Your task to perform on an android device: turn on airplane mode Image 0: 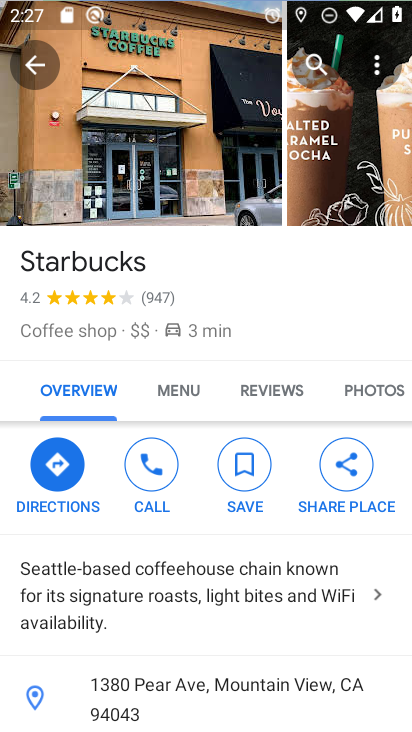
Step 0: press home button
Your task to perform on an android device: turn on airplane mode Image 1: 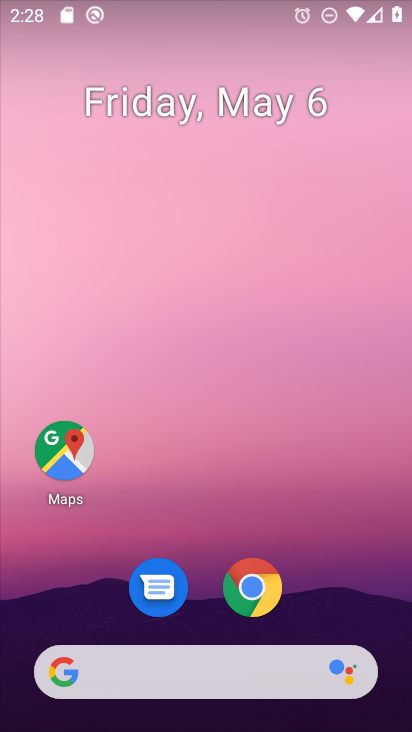
Step 1: drag from (316, 426) to (351, 39)
Your task to perform on an android device: turn on airplane mode Image 2: 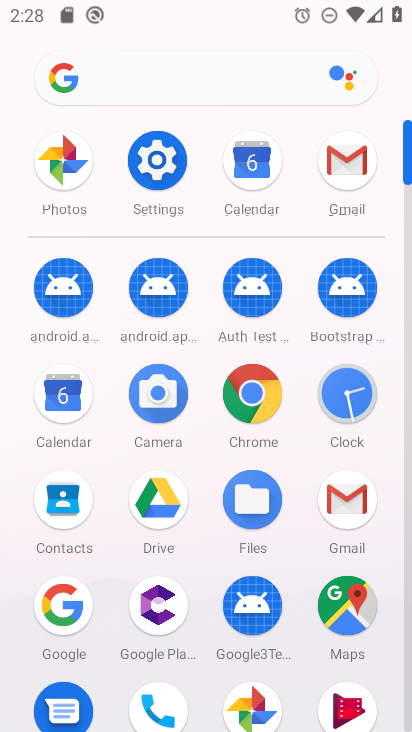
Step 2: click (162, 162)
Your task to perform on an android device: turn on airplane mode Image 3: 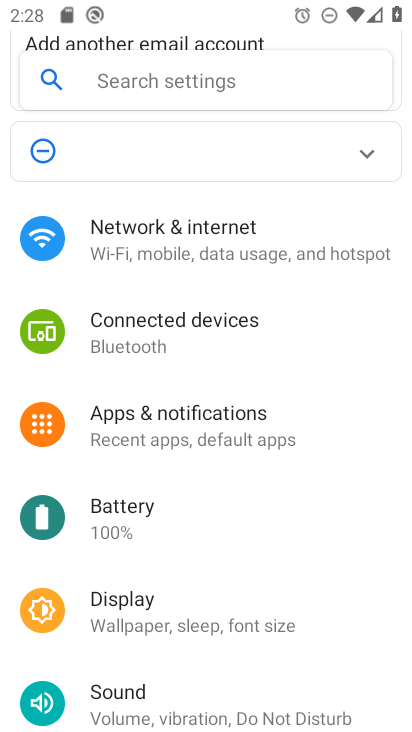
Step 3: click (187, 229)
Your task to perform on an android device: turn on airplane mode Image 4: 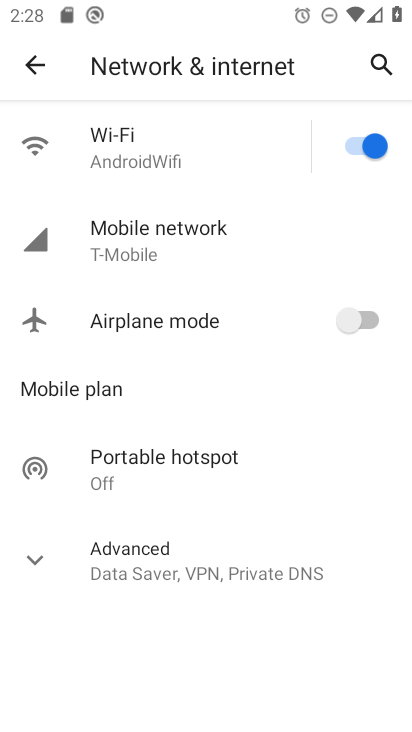
Step 4: click (370, 312)
Your task to perform on an android device: turn on airplane mode Image 5: 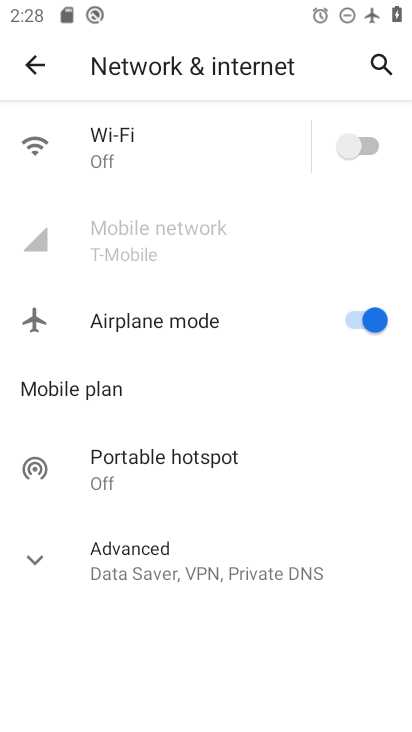
Step 5: task complete